Your task to perform on an android device: Go to Amazon Image 0: 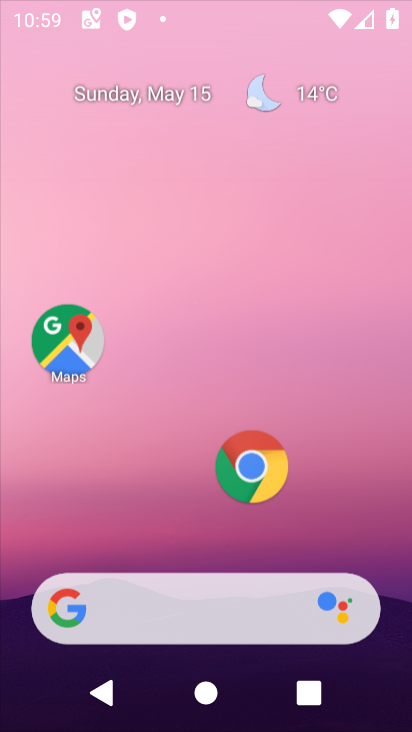
Step 0: drag from (222, 217) to (236, 181)
Your task to perform on an android device: Go to Amazon Image 1: 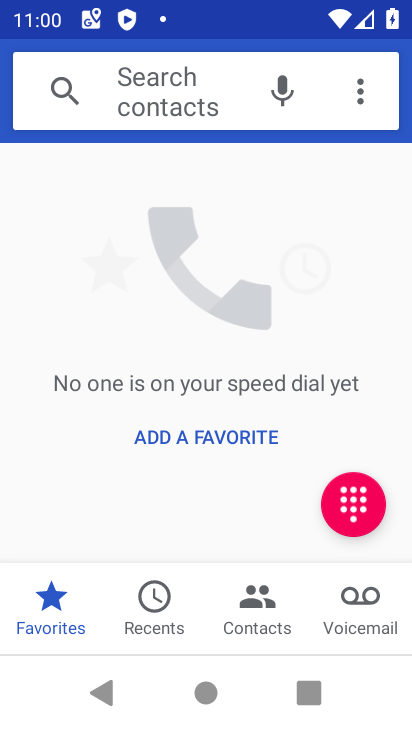
Step 1: press home button
Your task to perform on an android device: Go to Amazon Image 2: 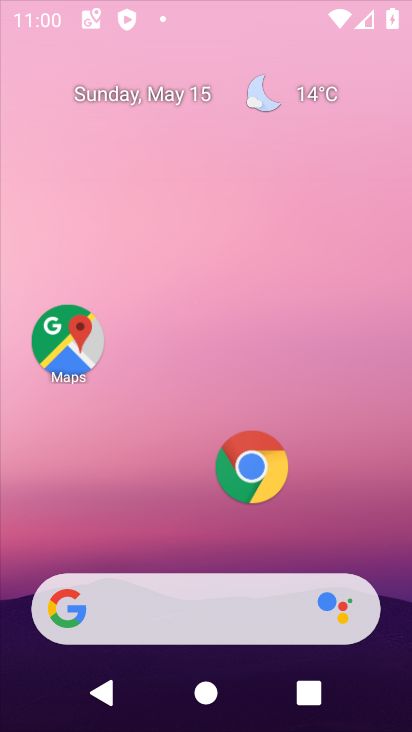
Step 2: drag from (183, 542) to (267, 117)
Your task to perform on an android device: Go to Amazon Image 3: 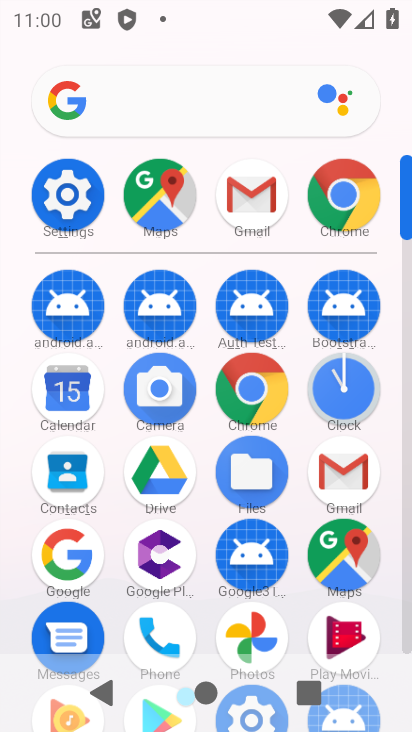
Step 3: click (244, 384)
Your task to perform on an android device: Go to Amazon Image 4: 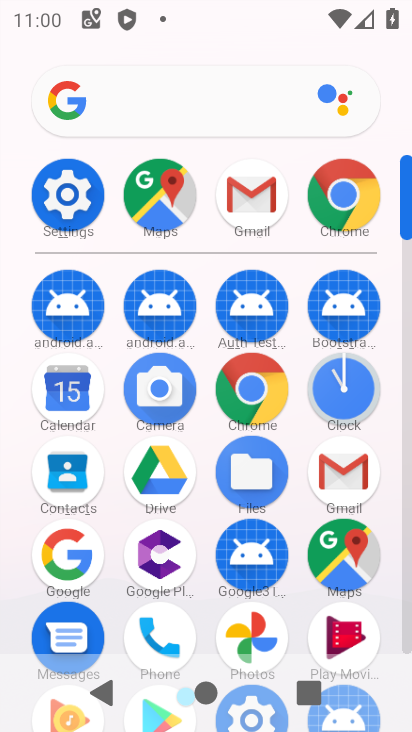
Step 4: click (244, 384)
Your task to perform on an android device: Go to Amazon Image 5: 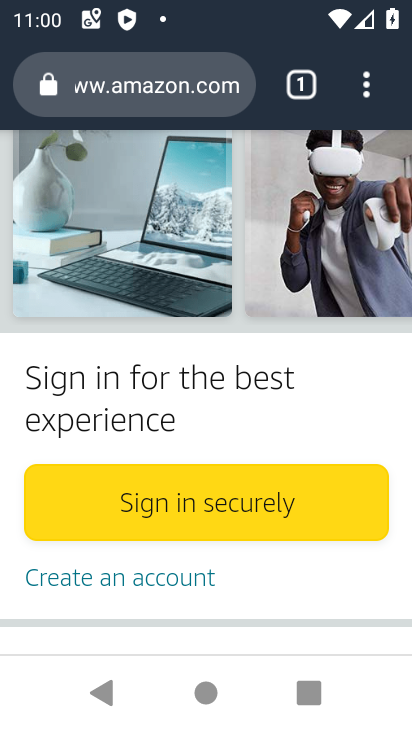
Step 5: task complete